Your task to perform on an android device: change keyboard looks Image 0: 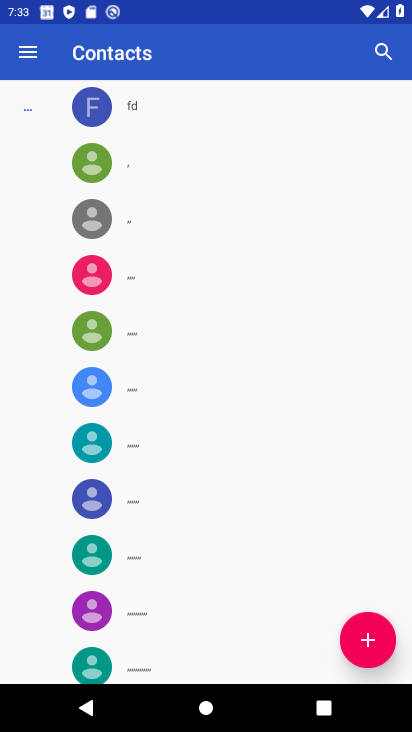
Step 0: press back button
Your task to perform on an android device: change keyboard looks Image 1: 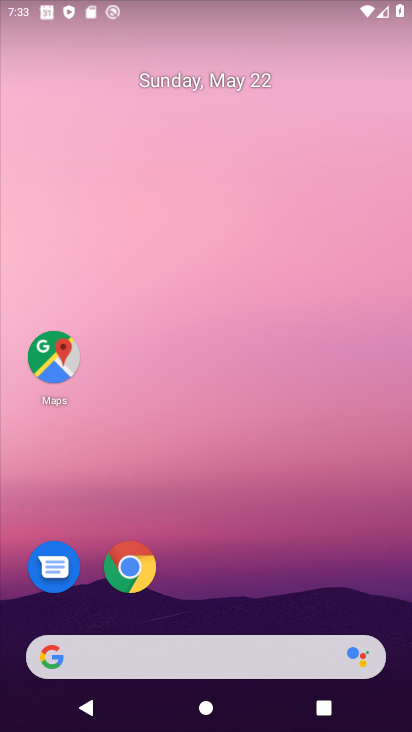
Step 1: drag from (301, 563) to (346, 75)
Your task to perform on an android device: change keyboard looks Image 2: 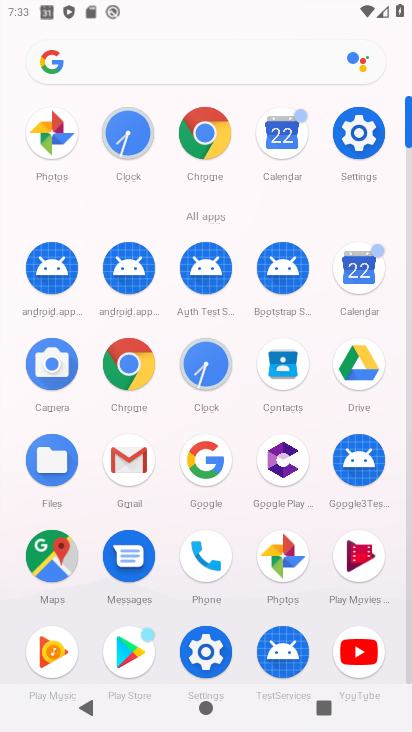
Step 2: click (355, 135)
Your task to perform on an android device: change keyboard looks Image 3: 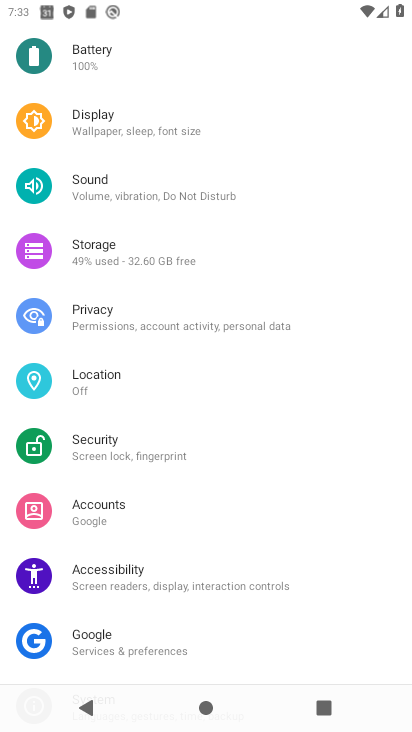
Step 3: drag from (167, 620) to (326, 2)
Your task to perform on an android device: change keyboard looks Image 4: 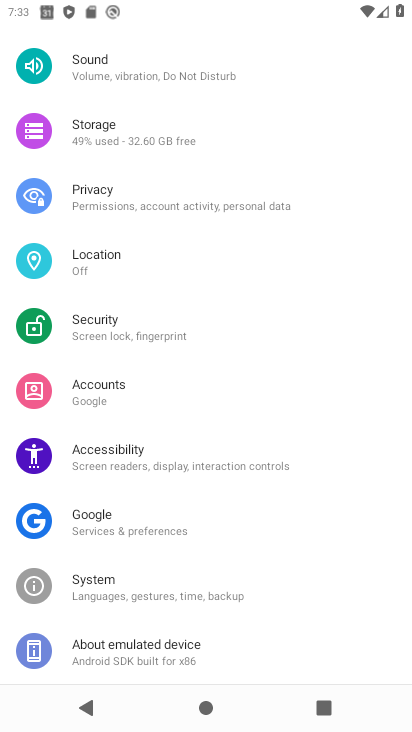
Step 4: click (150, 640)
Your task to perform on an android device: change keyboard looks Image 5: 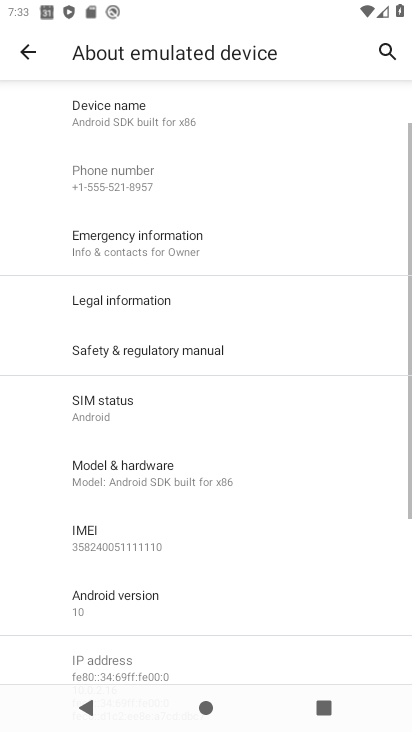
Step 5: click (23, 48)
Your task to perform on an android device: change keyboard looks Image 6: 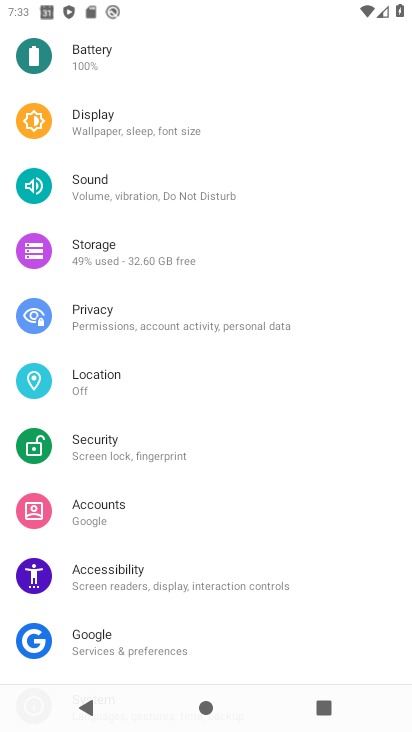
Step 6: drag from (84, 662) to (238, 89)
Your task to perform on an android device: change keyboard looks Image 7: 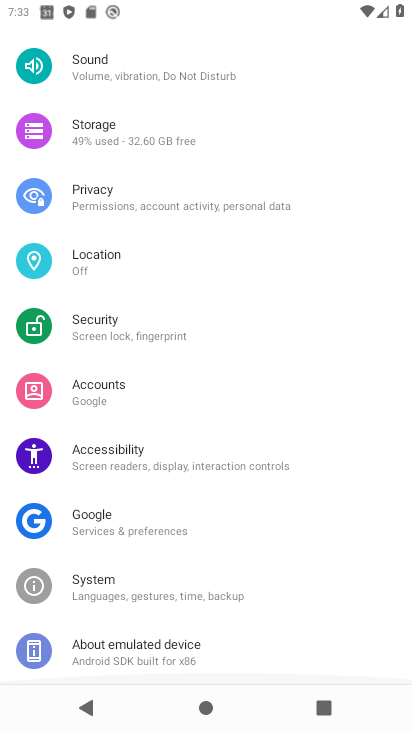
Step 7: click (148, 586)
Your task to perform on an android device: change keyboard looks Image 8: 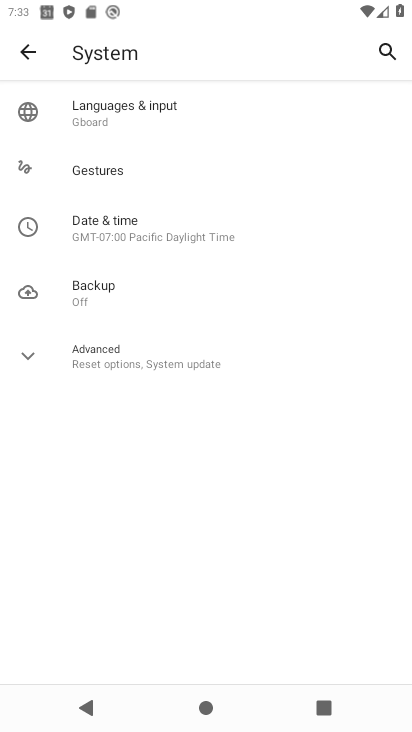
Step 8: click (103, 121)
Your task to perform on an android device: change keyboard looks Image 9: 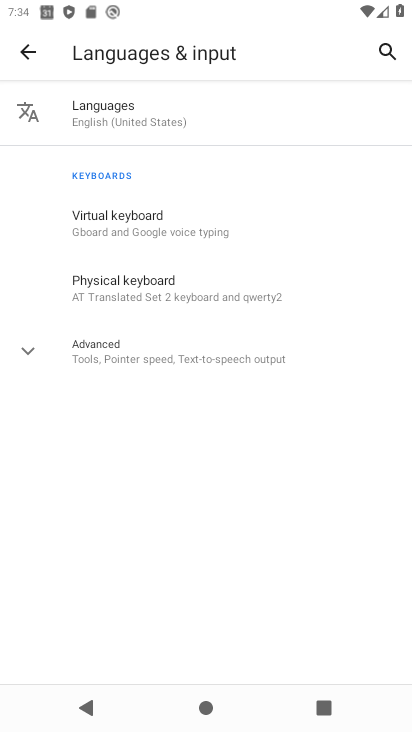
Step 9: click (130, 217)
Your task to perform on an android device: change keyboard looks Image 10: 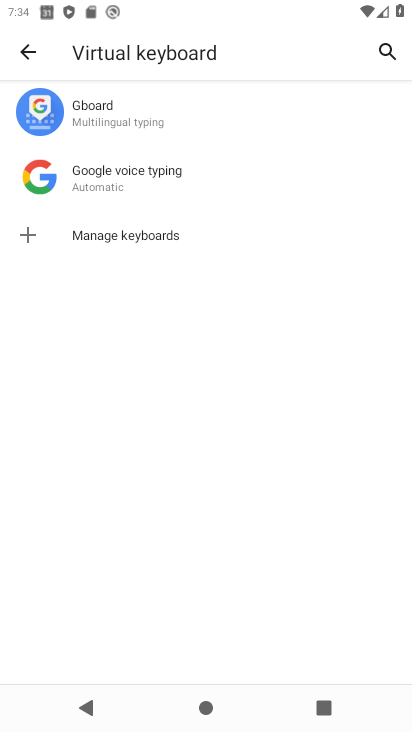
Step 10: click (127, 102)
Your task to perform on an android device: change keyboard looks Image 11: 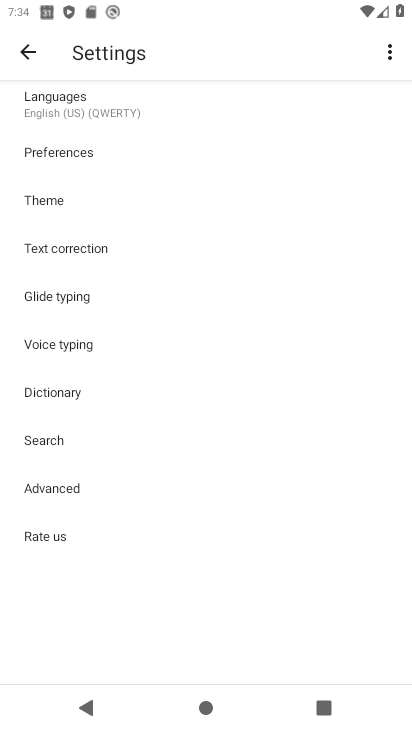
Step 11: click (79, 196)
Your task to perform on an android device: change keyboard looks Image 12: 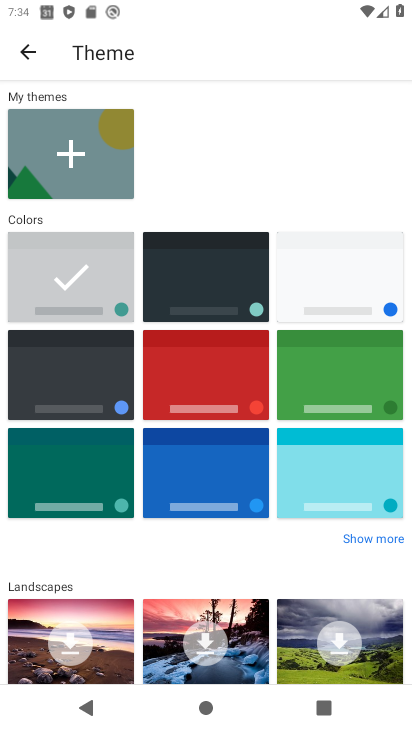
Step 12: click (195, 354)
Your task to perform on an android device: change keyboard looks Image 13: 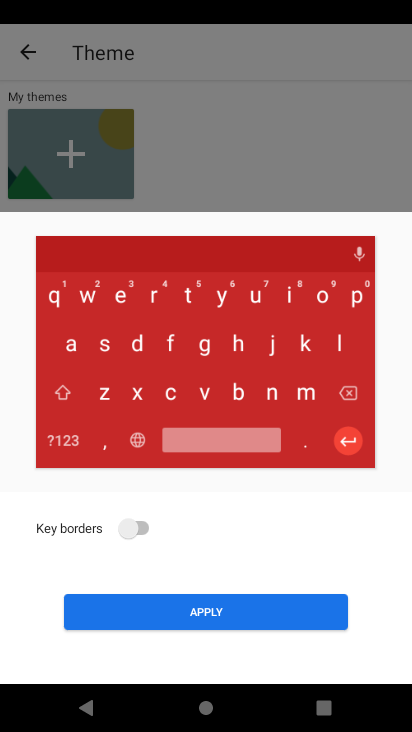
Step 13: click (213, 610)
Your task to perform on an android device: change keyboard looks Image 14: 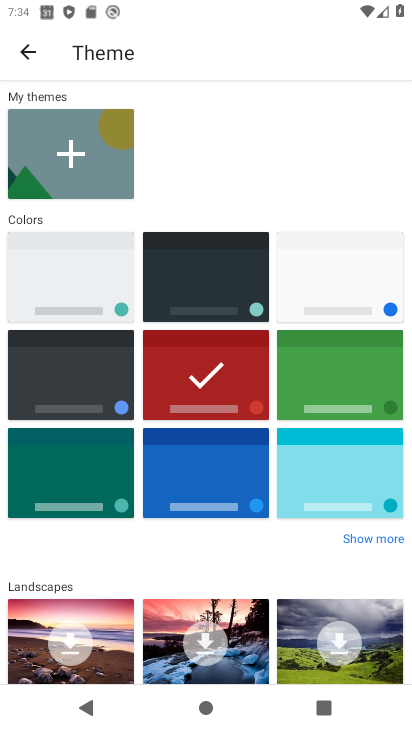
Step 14: task complete